Your task to perform on an android device: check battery use Image 0: 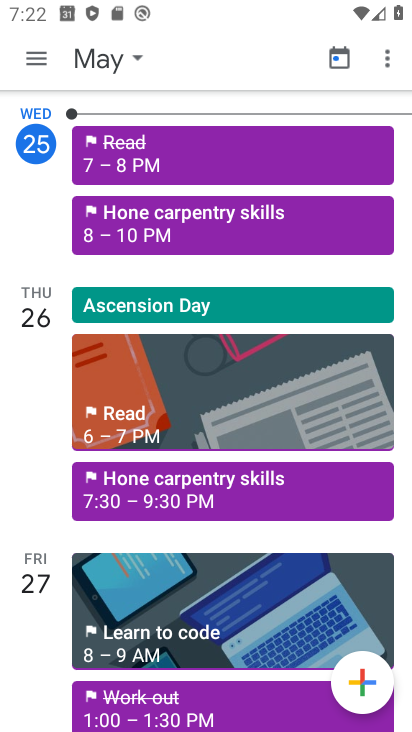
Step 0: press back button
Your task to perform on an android device: check battery use Image 1: 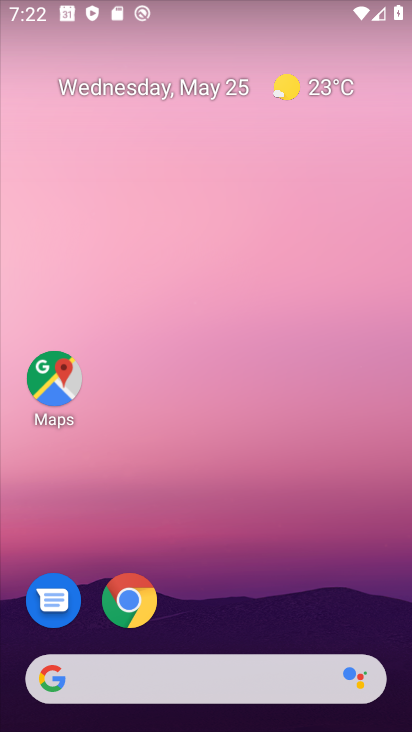
Step 1: drag from (277, 597) to (260, 166)
Your task to perform on an android device: check battery use Image 2: 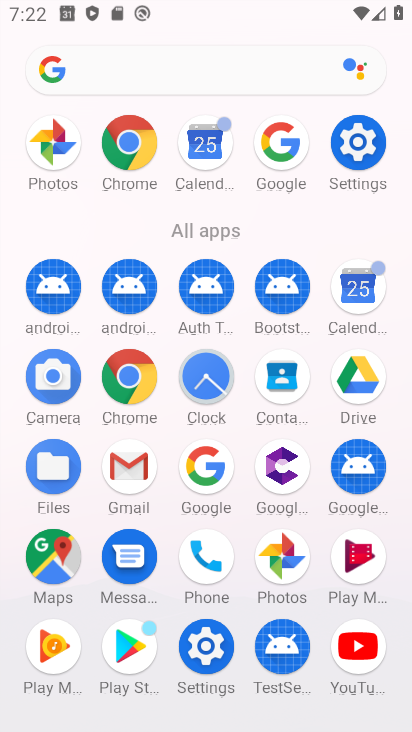
Step 2: click (358, 143)
Your task to perform on an android device: check battery use Image 3: 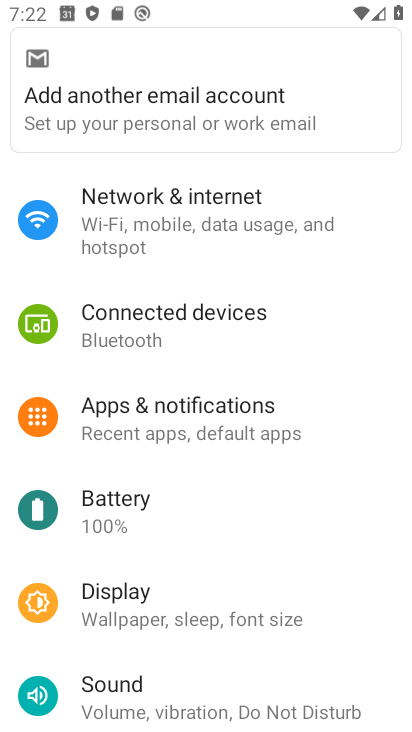
Step 3: click (120, 498)
Your task to perform on an android device: check battery use Image 4: 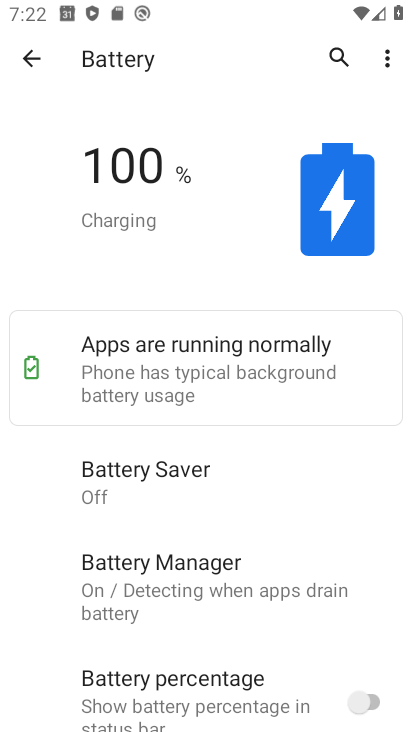
Step 4: click (387, 60)
Your task to perform on an android device: check battery use Image 5: 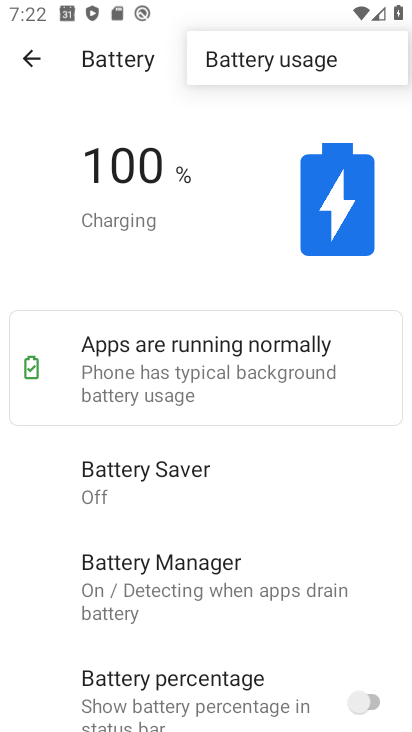
Step 5: click (300, 54)
Your task to perform on an android device: check battery use Image 6: 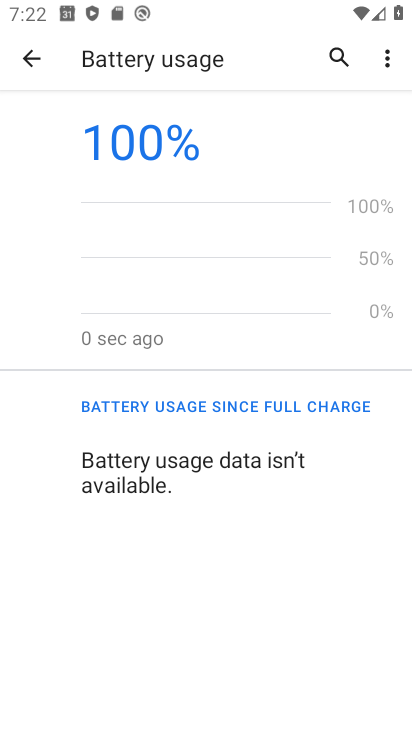
Step 6: task complete